Your task to perform on an android device: Go to battery settings Image 0: 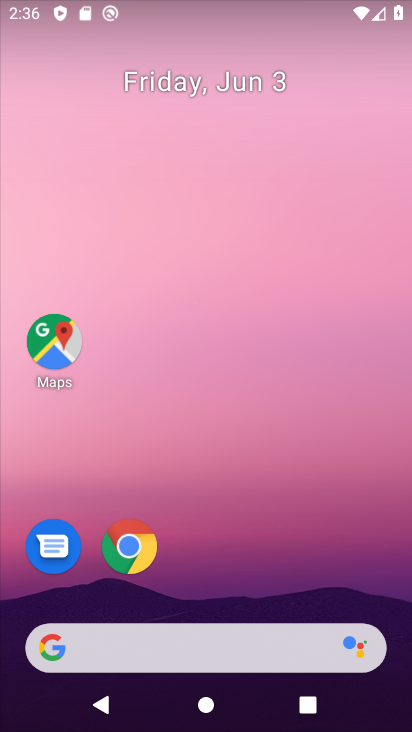
Step 0: drag from (285, 556) to (256, 47)
Your task to perform on an android device: Go to battery settings Image 1: 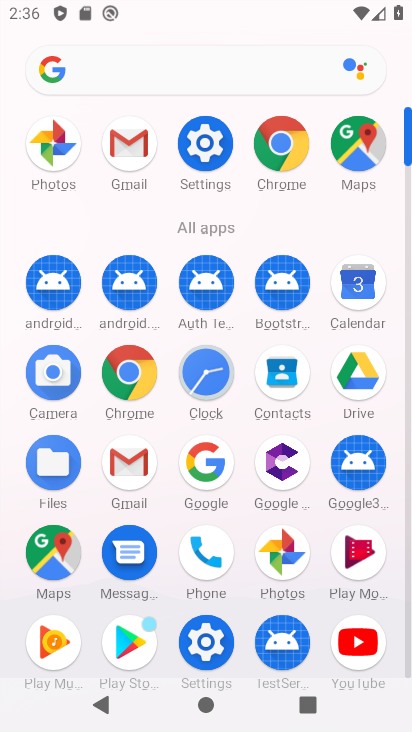
Step 1: click (211, 626)
Your task to perform on an android device: Go to battery settings Image 2: 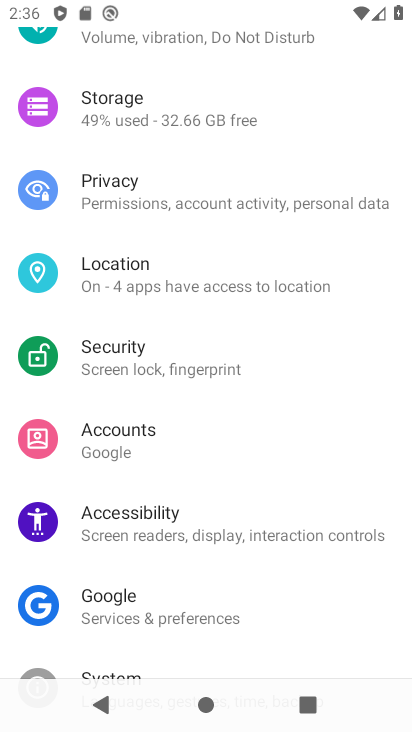
Step 2: drag from (162, 285) to (154, 693)
Your task to perform on an android device: Go to battery settings Image 3: 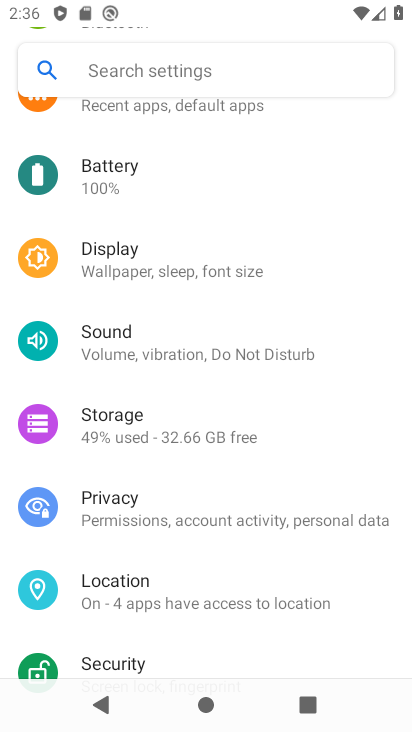
Step 3: click (160, 172)
Your task to perform on an android device: Go to battery settings Image 4: 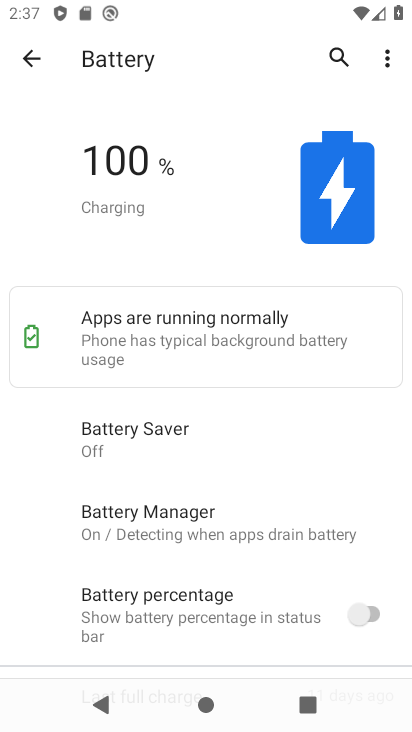
Step 4: task complete